Your task to perform on an android device: move an email to a new category in the gmail app Image 0: 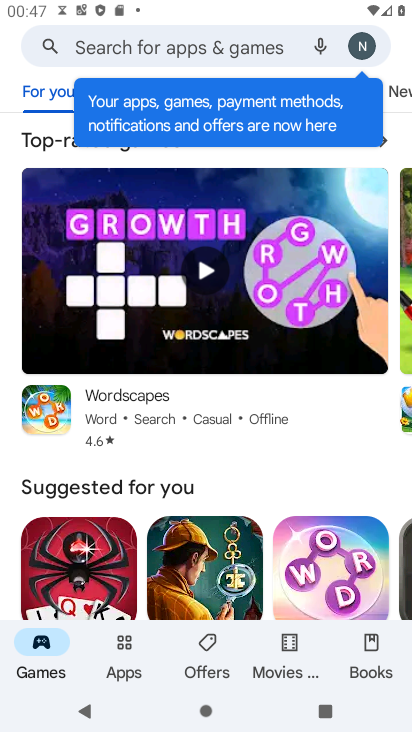
Step 0: press back button
Your task to perform on an android device: move an email to a new category in the gmail app Image 1: 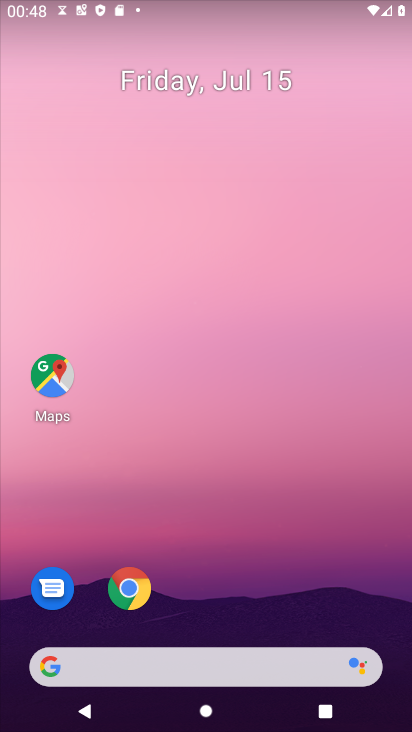
Step 1: drag from (240, 507) to (290, 91)
Your task to perform on an android device: move an email to a new category in the gmail app Image 2: 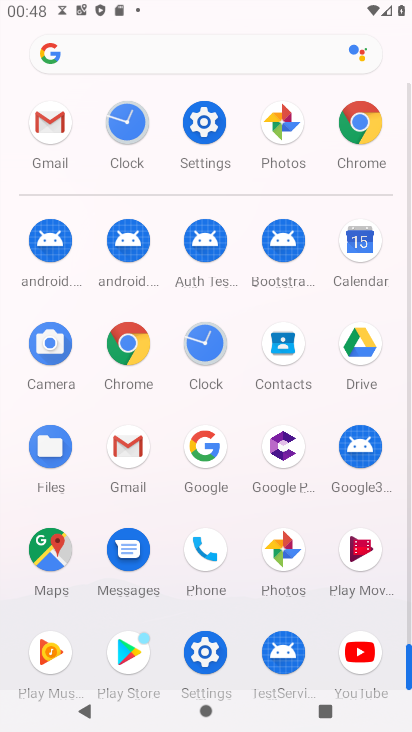
Step 2: click (52, 124)
Your task to perform on an android device: move an email to a new category in the gmail app Image 3: 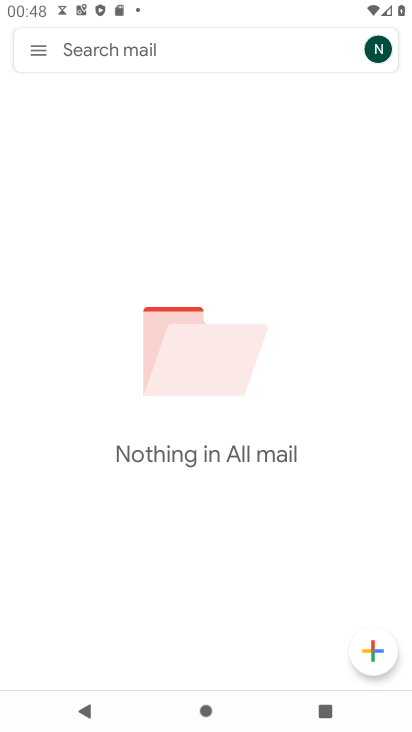
Step 3: click (34, 45)
Your task to perform on an android device: move an email to a new category in the gmail app Image 4: 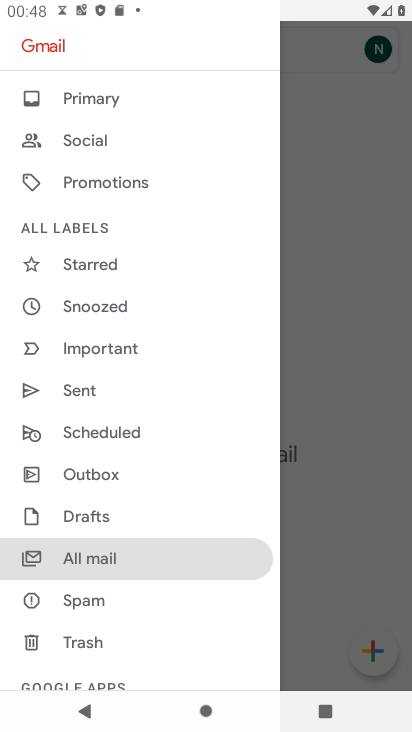
Step 4: click (125, 551)
Your task to perform on an android device: move an email to a new category in the gmail app Image 5: 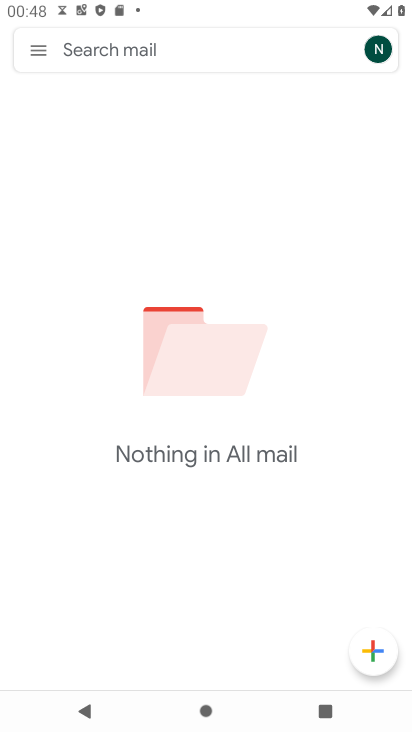
Step 5: task complete